Your task to perform on an android device: change the clock style Image 0: 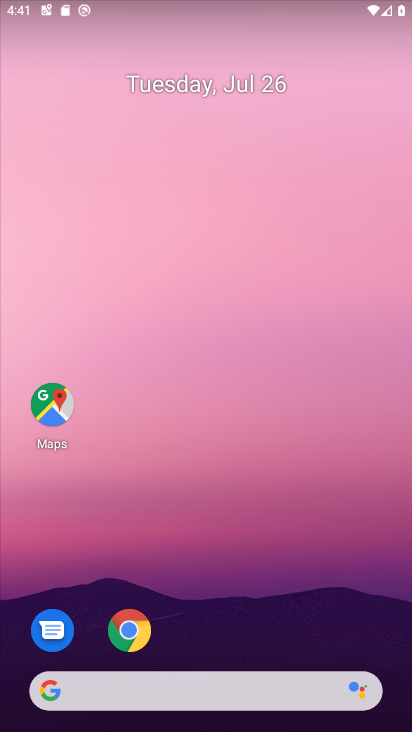
Step 0: drag from (264, 648) to (202, 253)
Your task to perform on an android device: change the clock style Image 1: 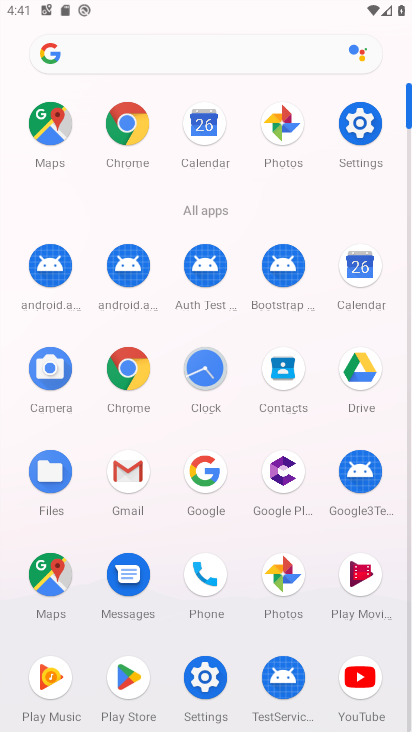
Step 1: click (216, 377)
Your task to perform on an android device: change the clock style Image 2: 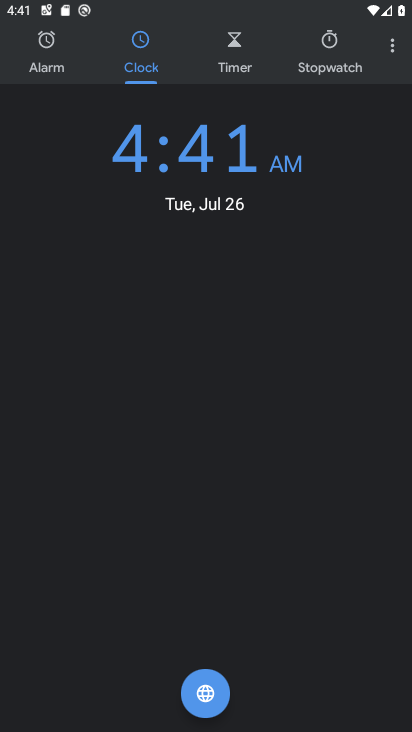
Step 2: click (399, 51)
Your task to perform on an android device: change the clock style Image 3: 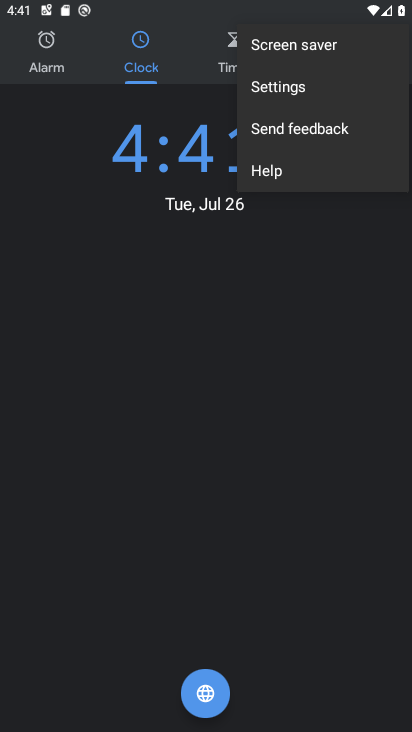
Step 3: click (343, 88)
Your task to perform on an android device: change the clock style Image 4: 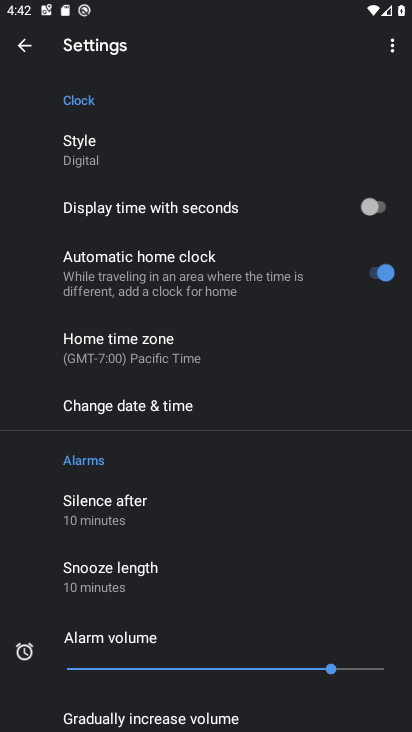
Step 4: click (273, 163)
Your task to perform on an android device: change the clock style Image 5: 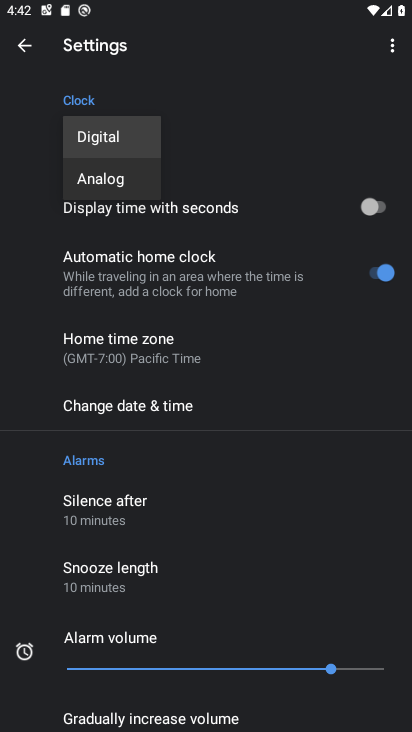
Step 5: click (139, 175)
Your task to perform on an android device: change the clock style Image 6: 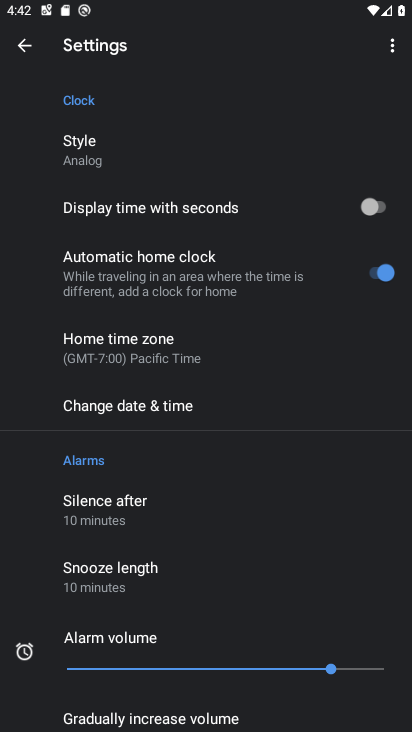
Step 6: task complete